Your task to perform on an android device: delete the emails in spam in the gmail app Image 0: 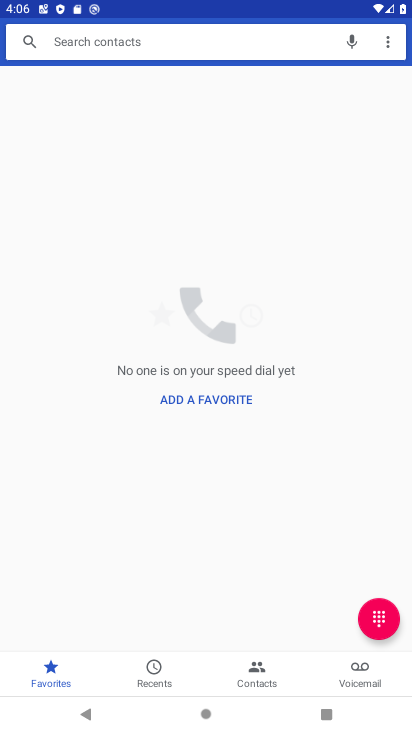
Step 0: press home button
Your task to perform on an android device: delete the emails in spam in the gmail app Image 1: 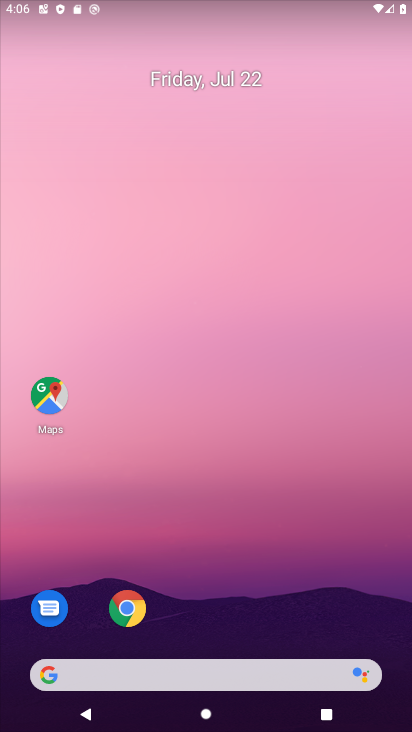
Step 1: drag from (227, 713) to (224, 96)
Your task to perform on an android device: delete the emails in spam in the gmail app Image 2: 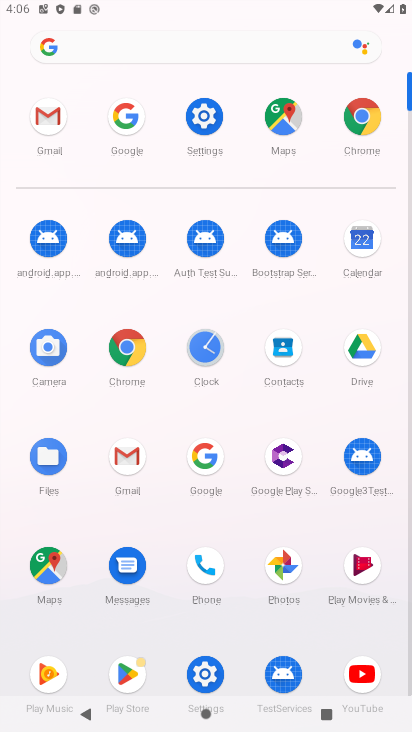
Step 2: click (121, 464)
Your task to perform on an android device: delete the emails in spam in the gmail app Image 3: 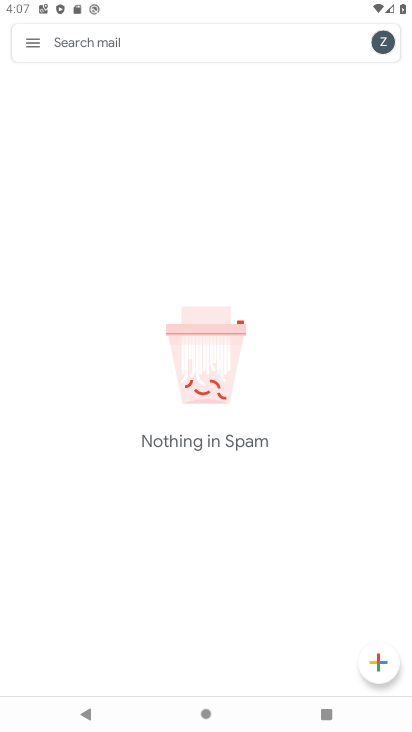
Step 3: click (36, 44)
Your task to perform on an android device: delete the emails in spam in the gmail app Image 4: 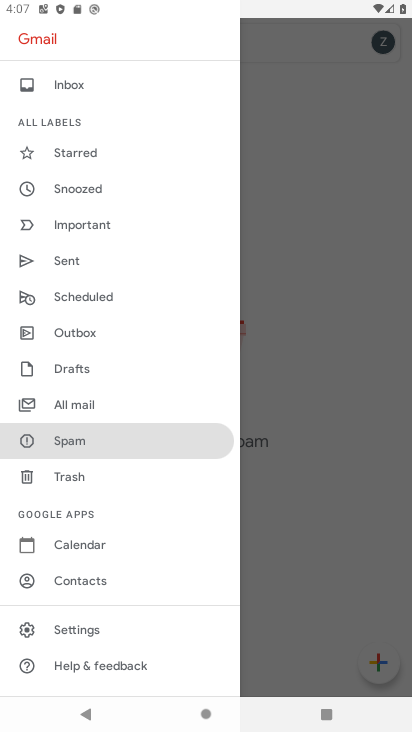
Step 4: click (85, 447)
Your task to perform on an android device: delete the emails in spam in the gmail app Image 5: 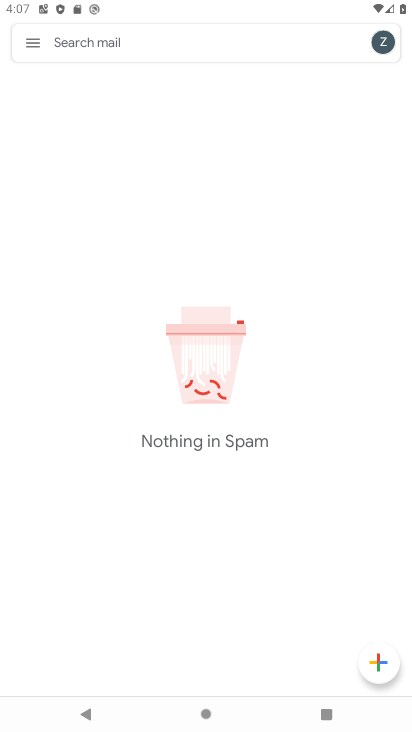
Step 5: task complete